Your task to perform on an android device: Go to network settings Image 0: 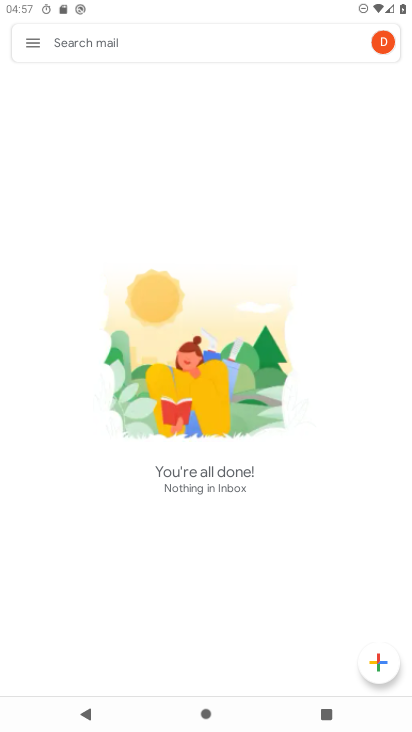
Step 0: press home button
Your task to perform on an android device: Go to network settings Image 1: 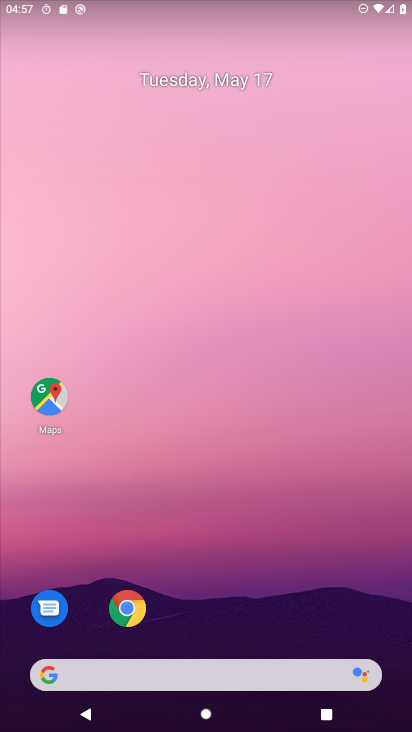
Step 1: drag from (132, 652) to (229, 42)
Your task to perform on an android device: Go to network settings Image 2: 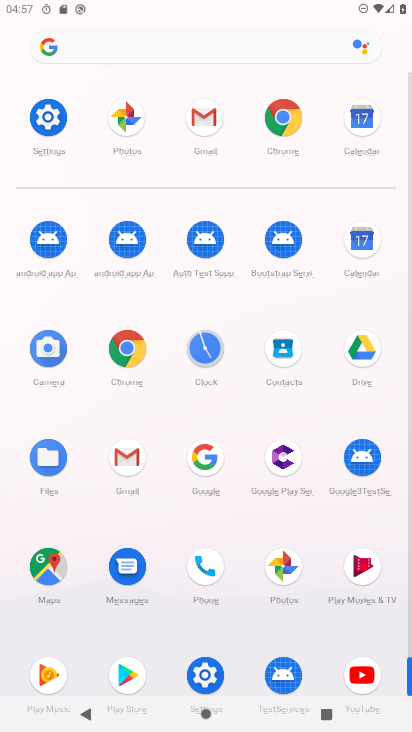
Step 2: click (54, 123)
Your task to perform on an android device: Go to network settings Image 3: 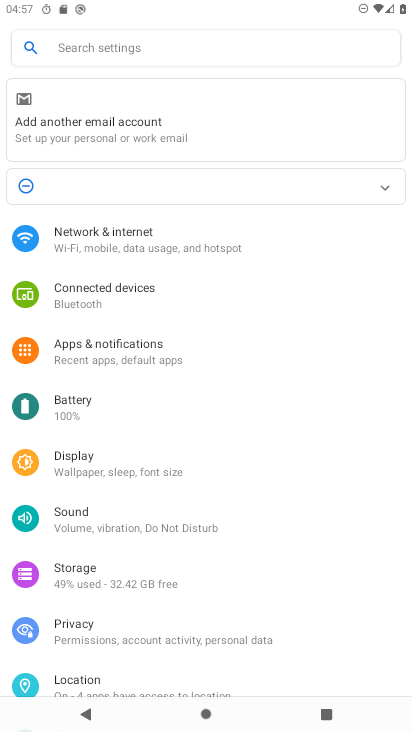
Step 3: click (109, 219)
Your task to perform on an android device: Go to network settings Image 4: 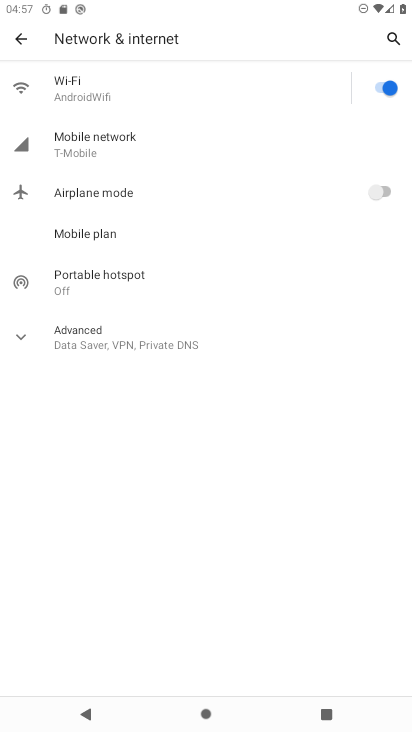
Step 4: click (97, 333)
Your task to perform on an android device: Go to network settings Image 5: 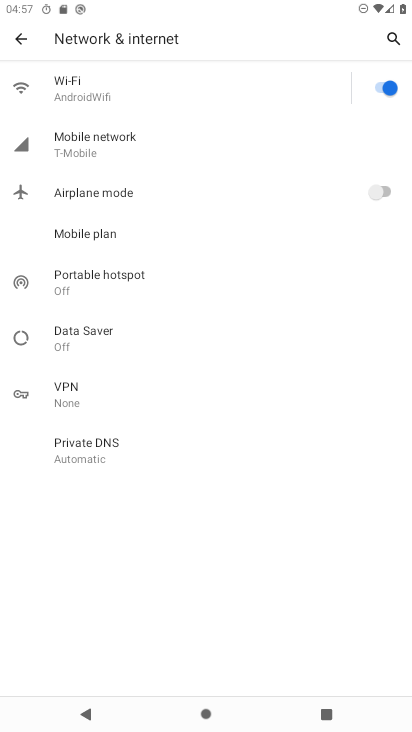
Step 5: task complete